Your task to perform on an android device: Show the shopping cart on target. Search for "razer naga" on target, select the first entry, and add it to the cart. Image 0: 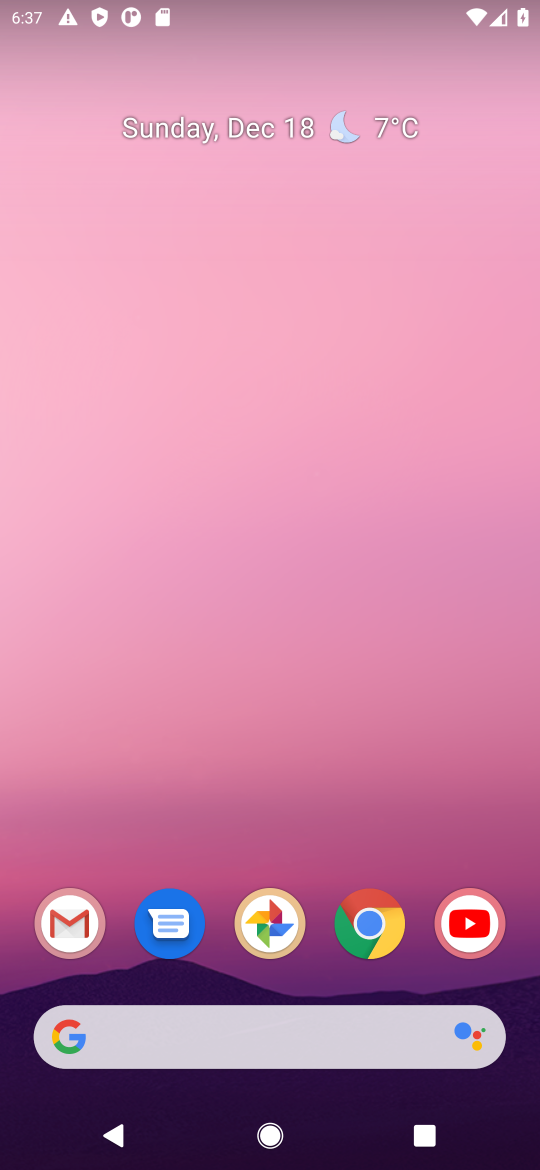
Step 0: press home button
Your task to perform on an android device: Show the shopping cart on target. Search for "razer naga" on target, select the first entry, and add it to the cart. Image 1: 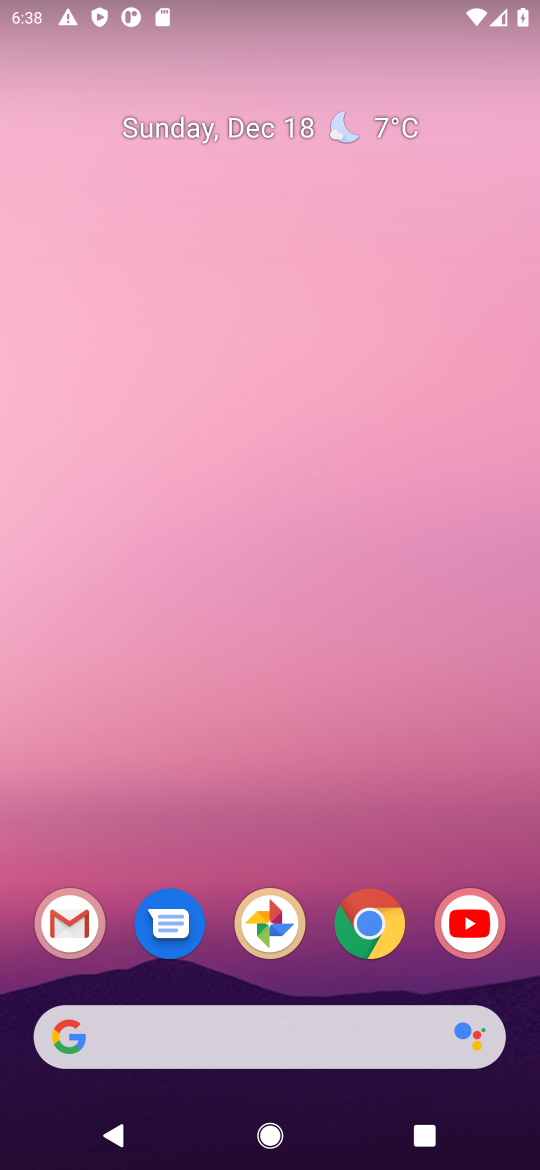
Step 1: click (92, 1029)
Your task to perform on an android device: Show the shopping cart on target. Search for "razer naga" on target, select the first entry, and add it to the cart. Image 2: 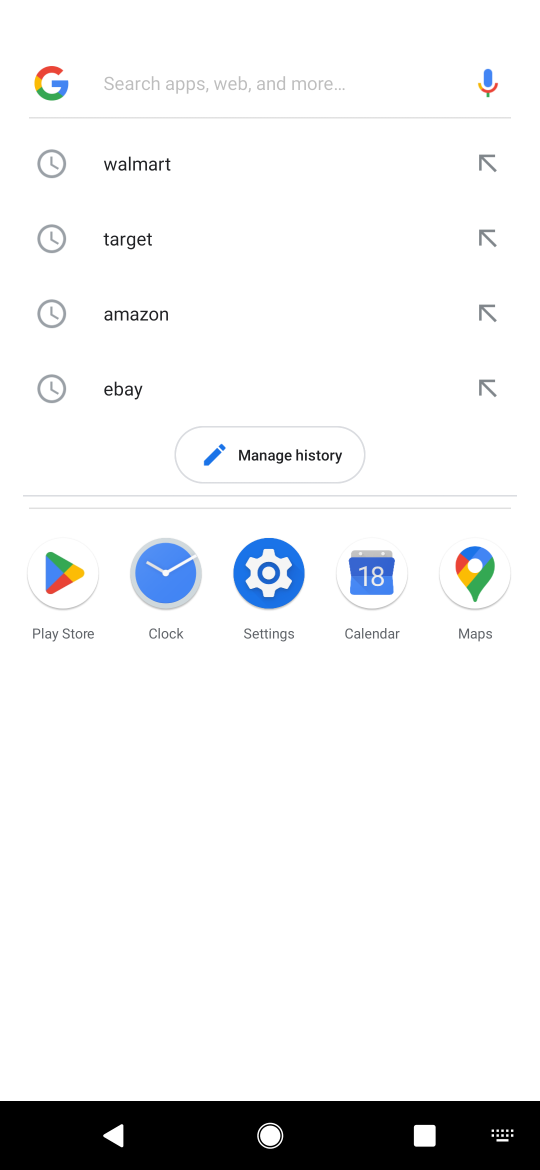
Step 2: type "target"
Your task to perform on an android device: Show the shopping cart on target. Search for "razer naga" on target, select the first entry, and add it to the cart. Image 3: 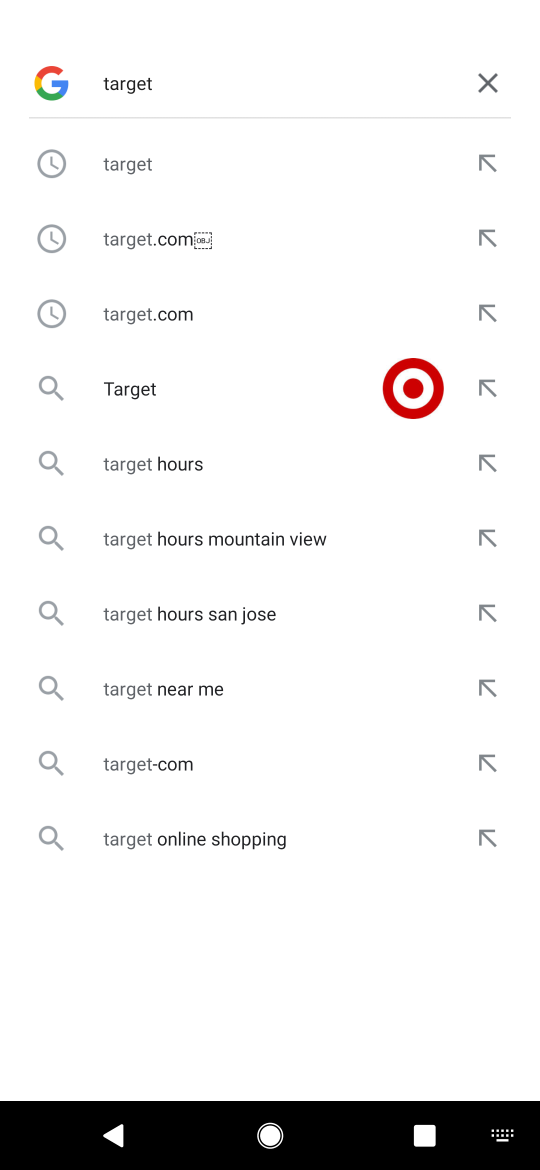
Step 3: press enter
Your task to perform on an android device: Show the shopping cart on target. Search for "razer naga" on target, select the first entry, and add it to the cart. Image 4: 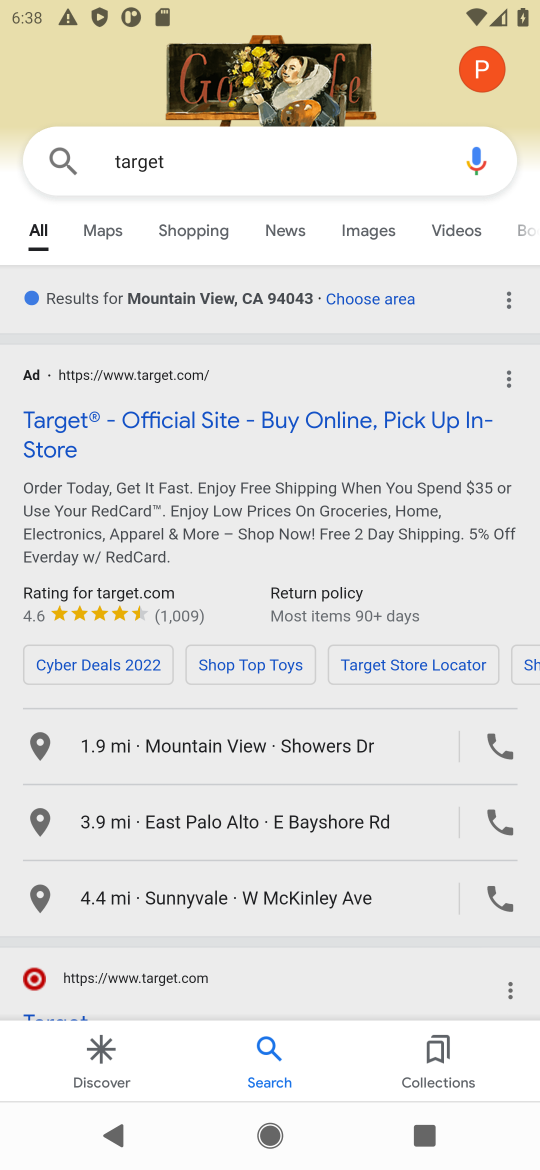
Step 4: click (182, 409)
Your task to perform on an android device: Show the shopping cart on target. Search for "razer naga" on target, select the first entry, and add it to the cart. Image 5: 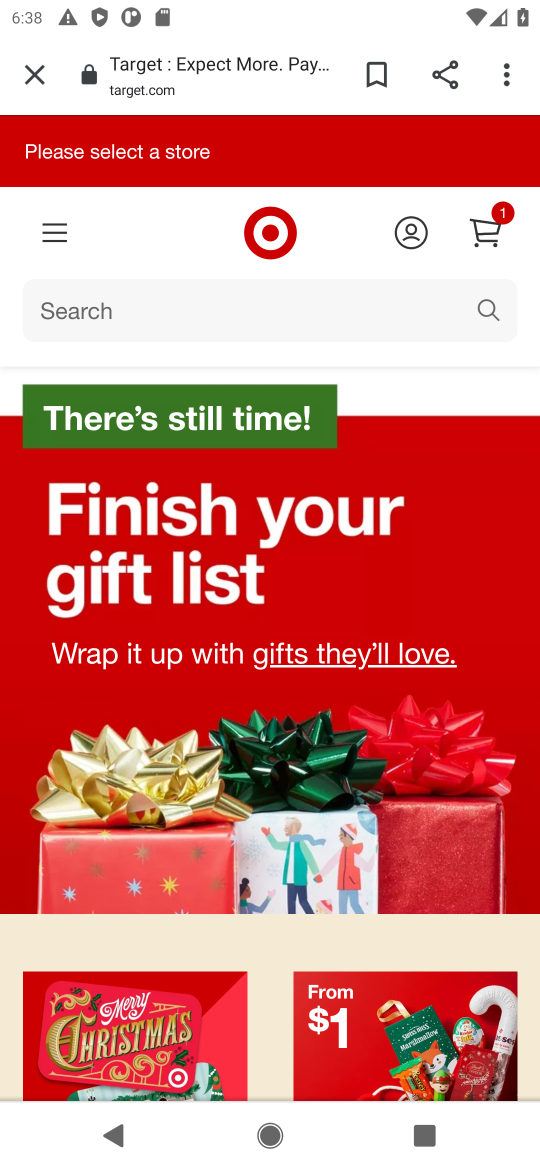
Step 5: click (491, 223)
Your task to perform on an android device: Show the shopping cart on target. Search for "razer naga" on target, select the first entry, and add it to the cart. Image 6: 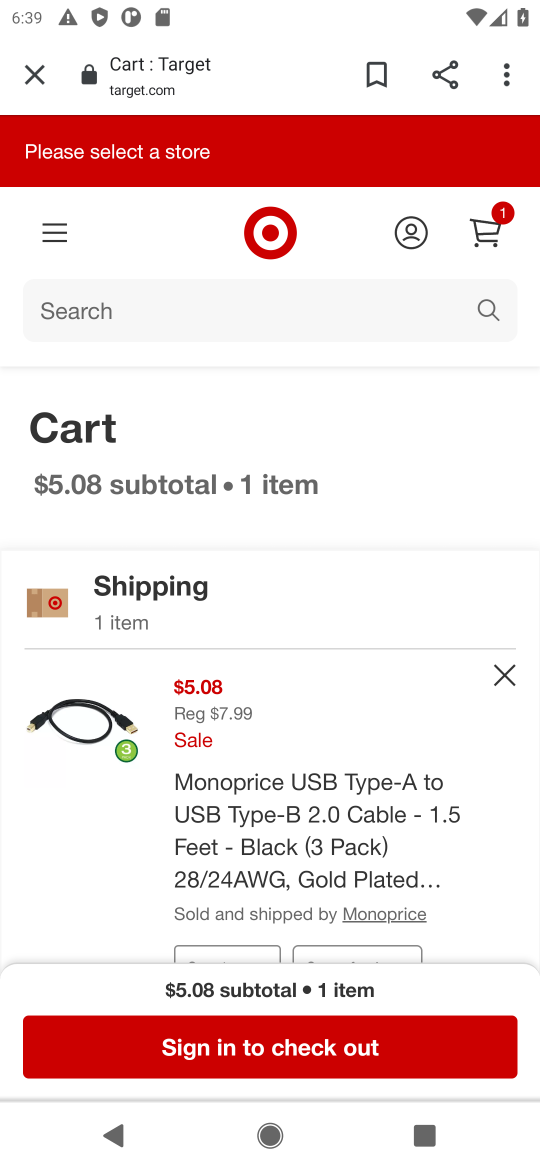
Step 6: type "razer naga"
Your task to perform on an android device: Show the shopping cart on target. Search for "razer naga" on target, select the first entry, and add it to the cart. Image 7: 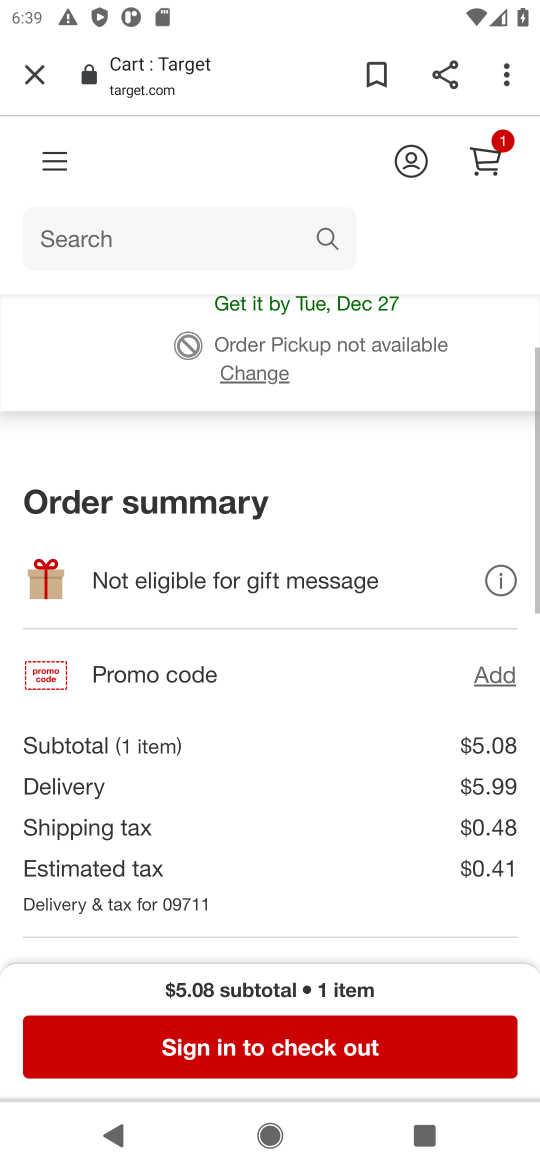
Step 7: press enter
Your task to perform on an android device: Show the shopping cart on target. Search for "razer naga" on target, select the first entry, and add it to the cart. Image 8: 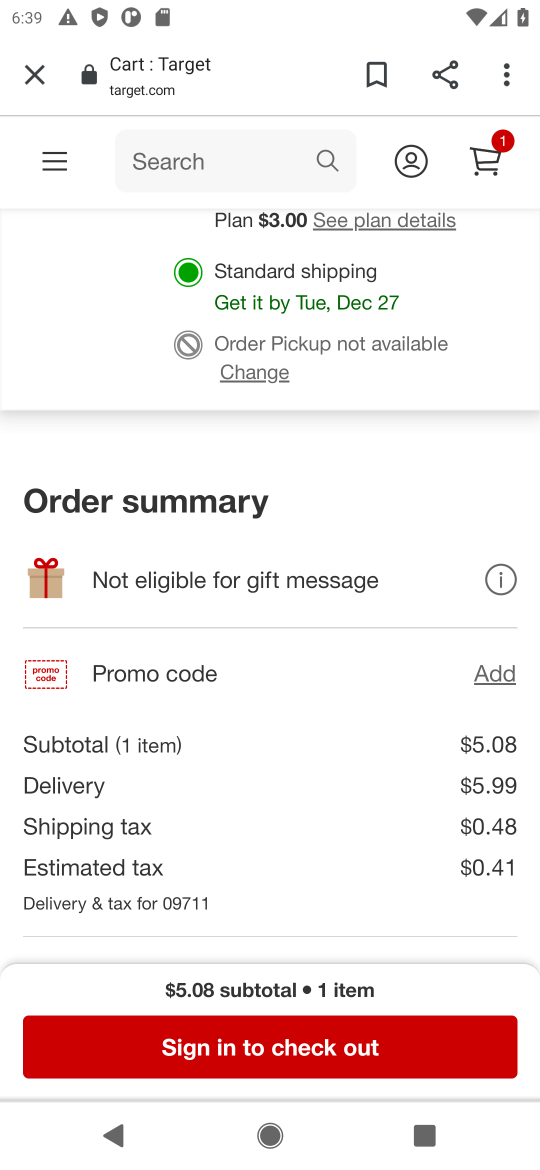
Step 8: drag from (274, 832) to (314, 319)
Your task to perform on an android device: Show the shopping cart on target. Search for "razer naga" on target, select the first entry, and add it to the cart. Image 9: 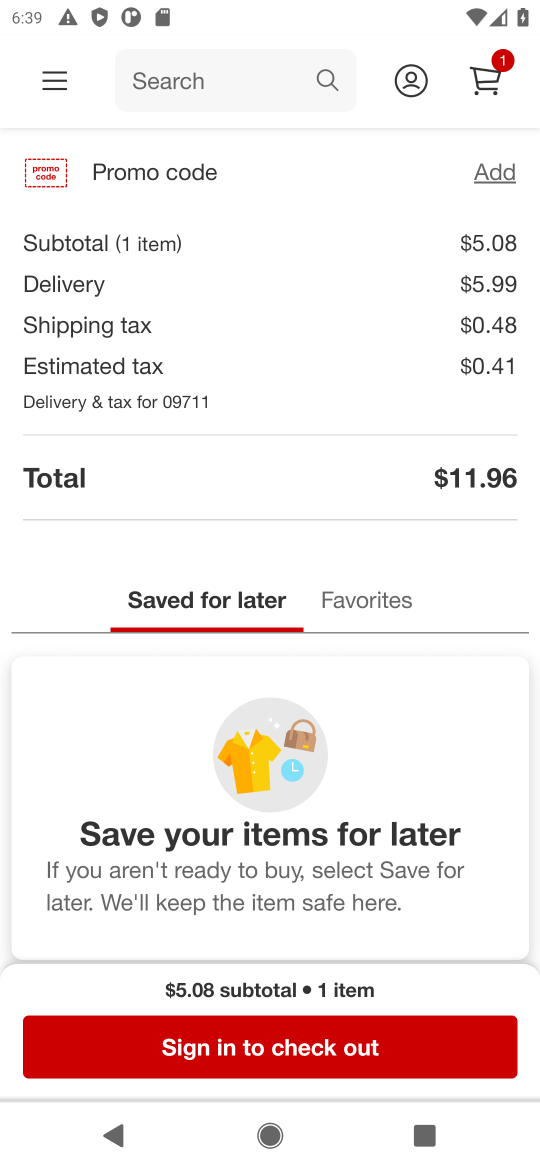
Step 9: drag from (294, 877) to (359, 197)
Your task to perform on an android device: Show the shopping cart on target. Search for "razer naga" on target, select the first entry, and add it to the cart. Image 10: 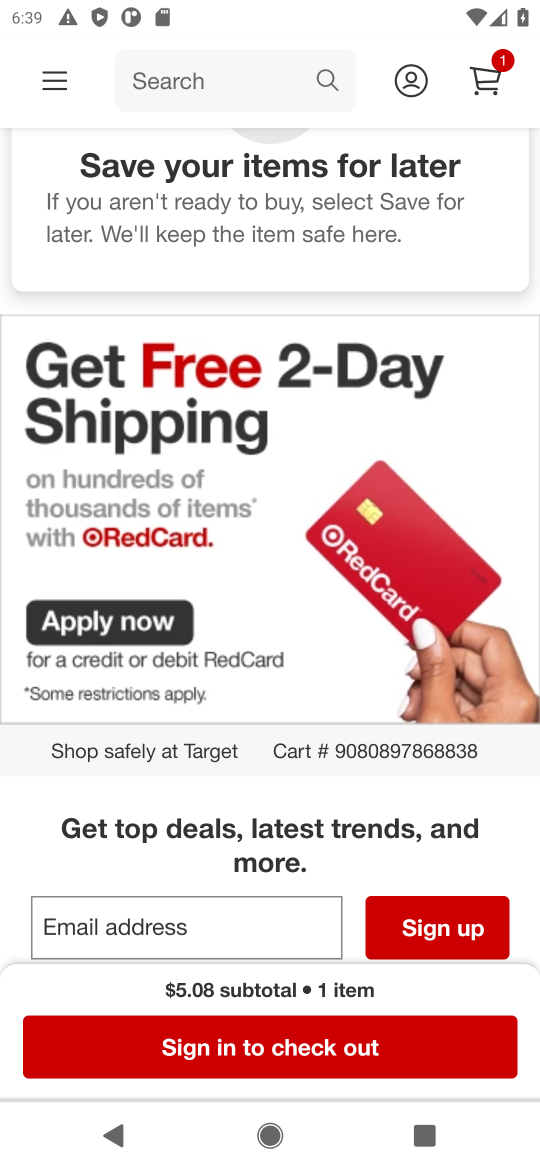
Step 10: click (167, 73)
Your task to perform on an android device: Show the shopping cart on target. Search for "razer naga" on target, select the first entry, and add it to the cart. Image 11: 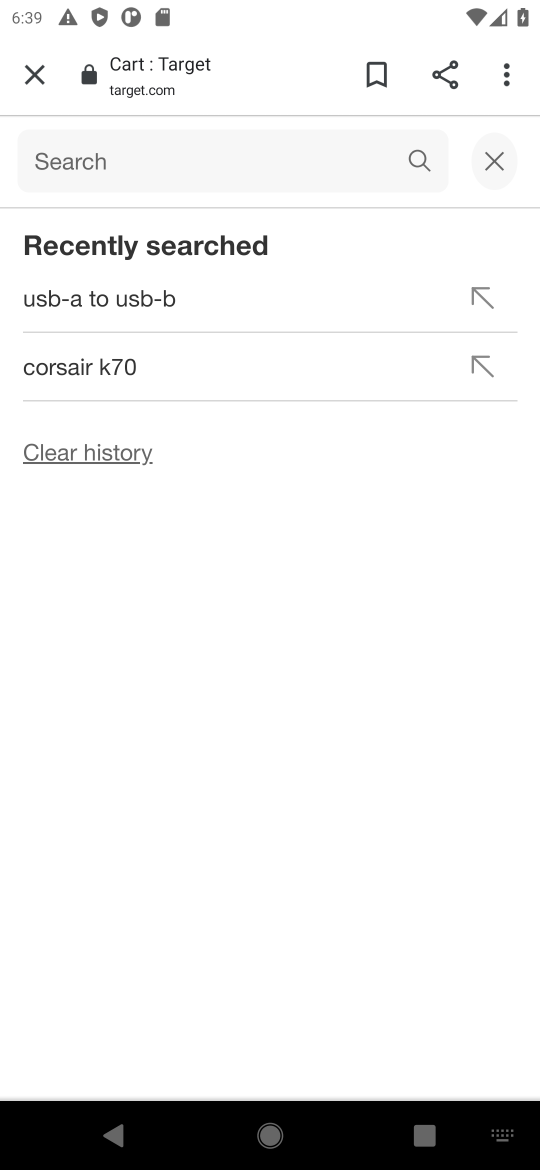
Step 11: type "razer naga"
Your task to perform on an android device: Show the shopping cart on target. Search for "razer naga" on target, select the first entry, and add it to the cart. Image 12: 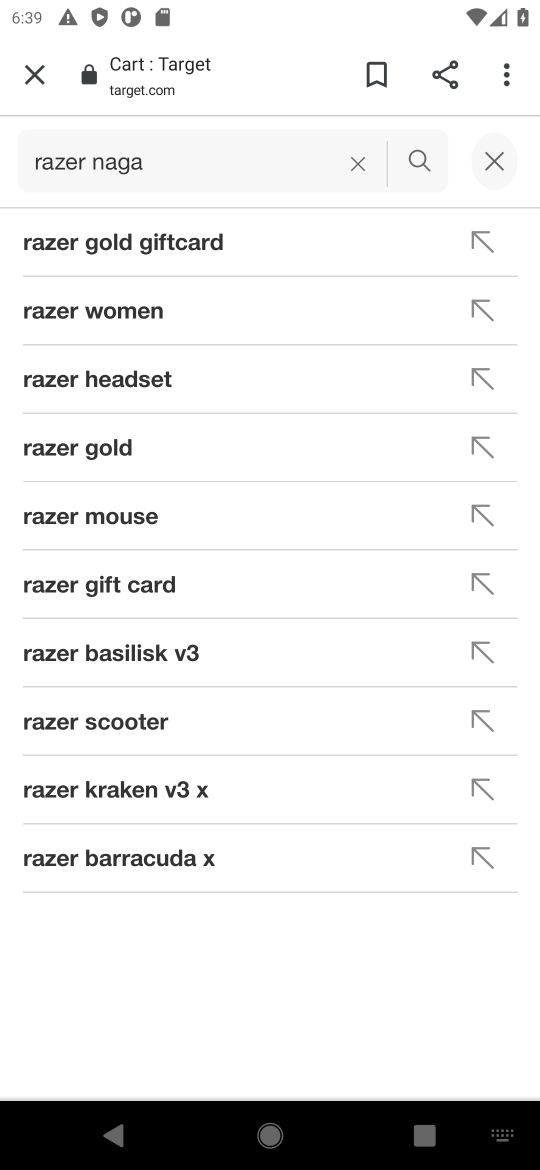
Step 12: click (424, 156)
Your task to perform on an android device: Show the shopping cart on target. Search for "razer naga" on target, select the first entry, and add it to the cart. Image 13: 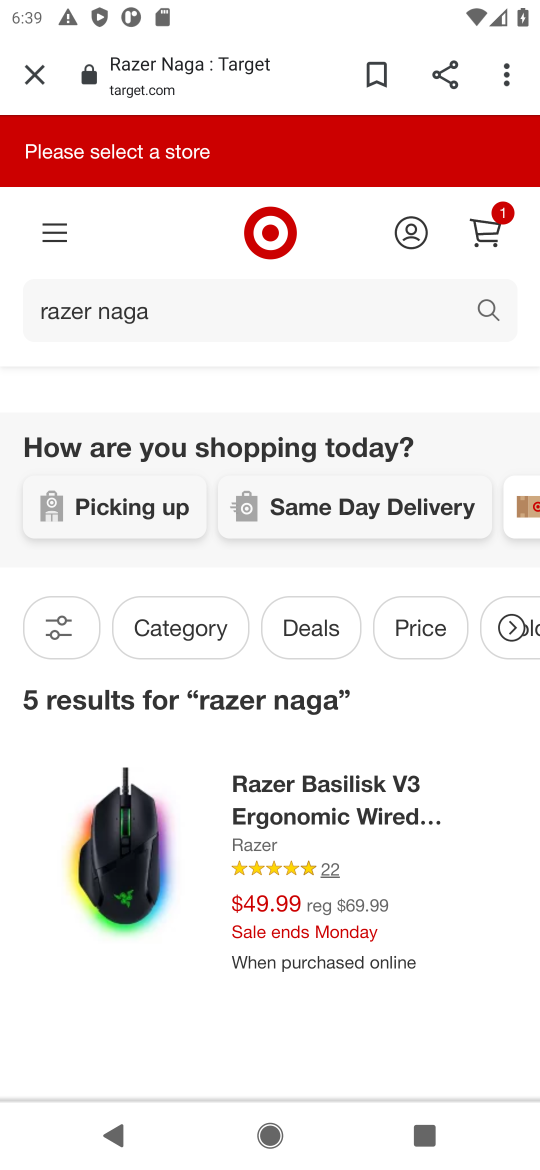
Step 13: task complete